Your task to perform on an android device: Open the stopwatch Image 0: 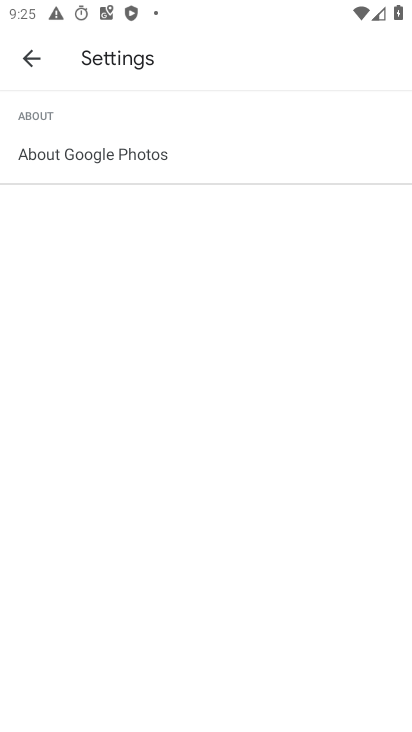
Step 0: press home button
Your task to perform on an android device: Open the stopwatch Image 1: 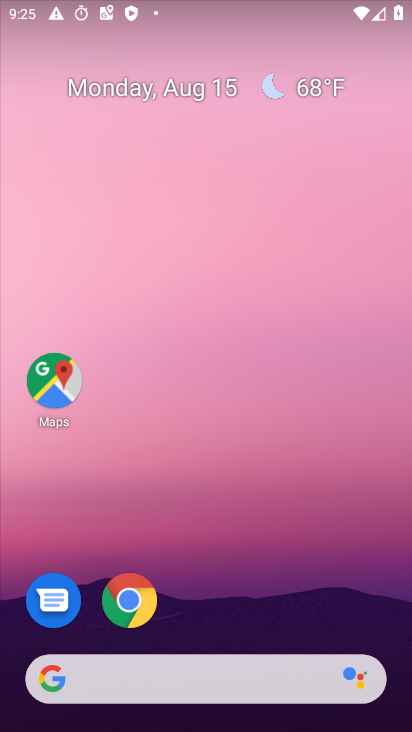
Step 1: drag from (217, 586) to (195, 103)
Your task to perform on an android device: Open the stopwatch Image 2: 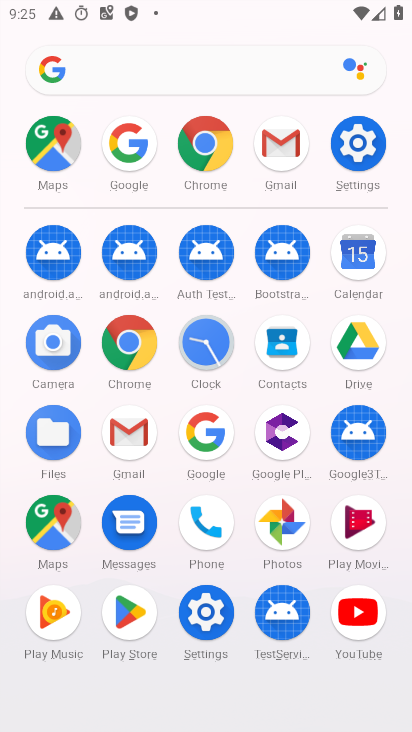
Step 2: click (196, 351)
Your task to perform on an android device: Open the stopwatch Image 3: 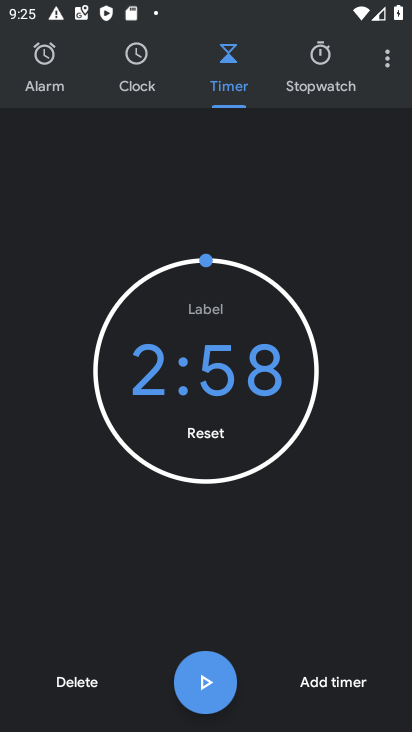
Step 3: click (325, 60)
Your task to perform on an android device: Open the stopwatch Image 4: 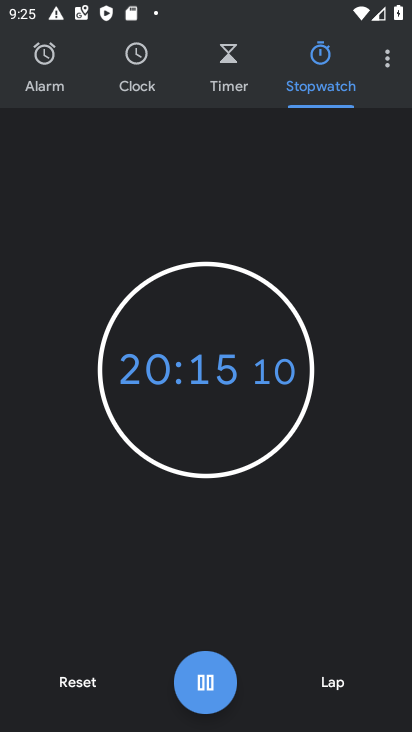
Step 4: task complete